Your task to perform on an android device: open app "Fetch Rewards" (install if not already installed) and go to login screen Image 0: 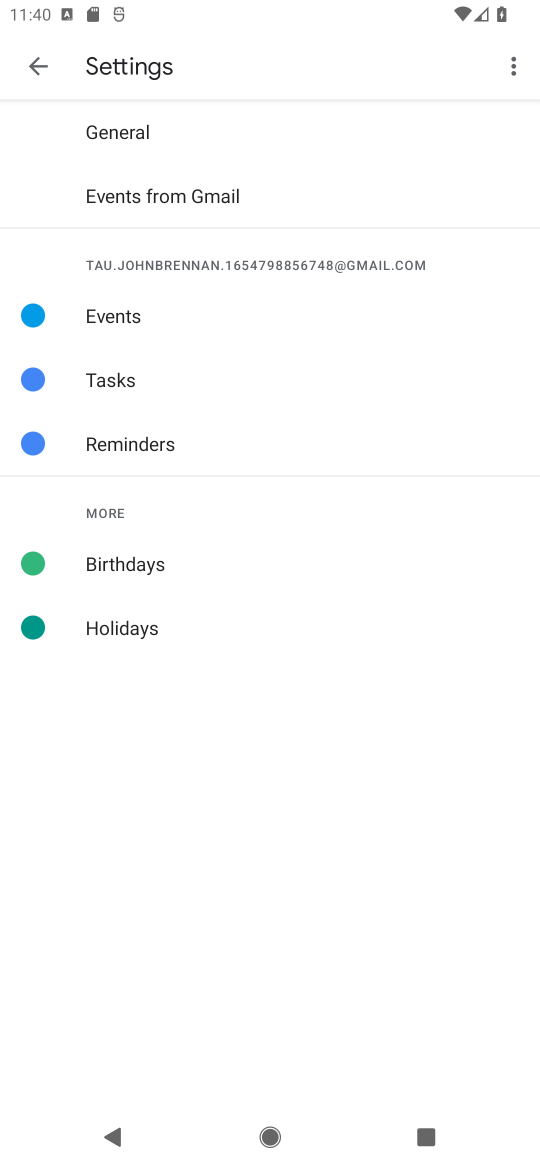
Step 0: press home button
Your task to perform on an android device: open app "Fetch Rewards" (install if not already installed) and go to login screen Image 1: 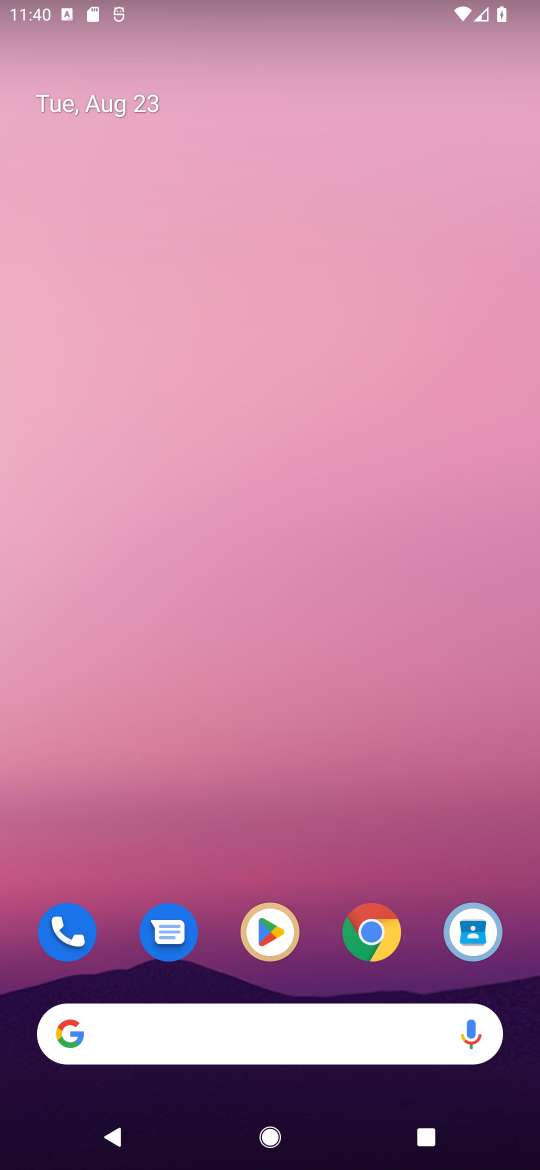
Step 1: click (274, 930)
Your task to perform on an android device: open app "Fetch Rewards" (install if not already installed) and go to login screen Image 2: 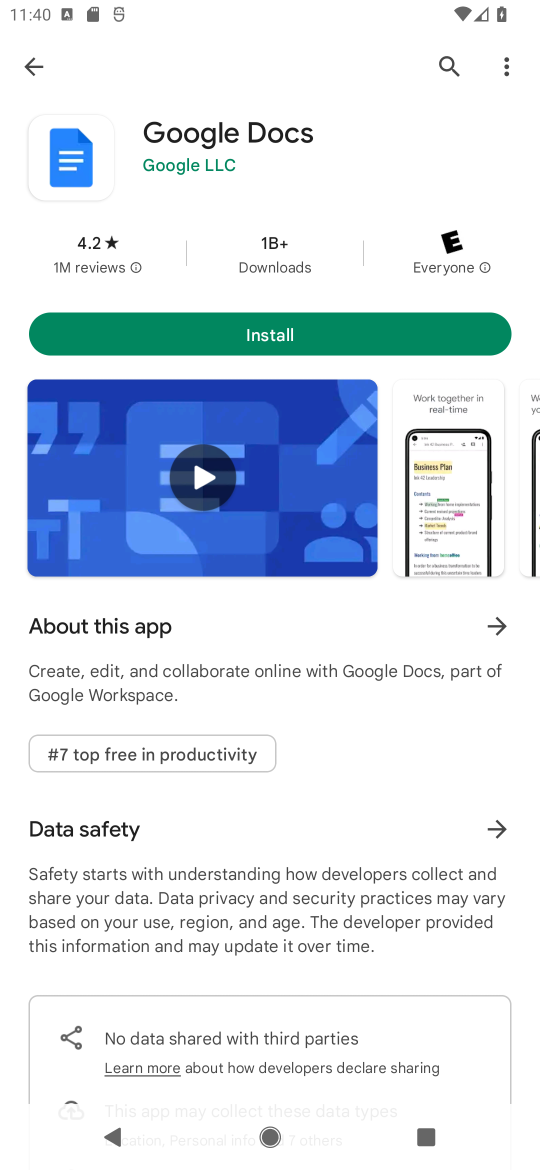
Step 2: click (445, 63)
Your task to perform on an android device: open app "Fetch Rewards" (install if not already installed) and go to login screen Image 3: 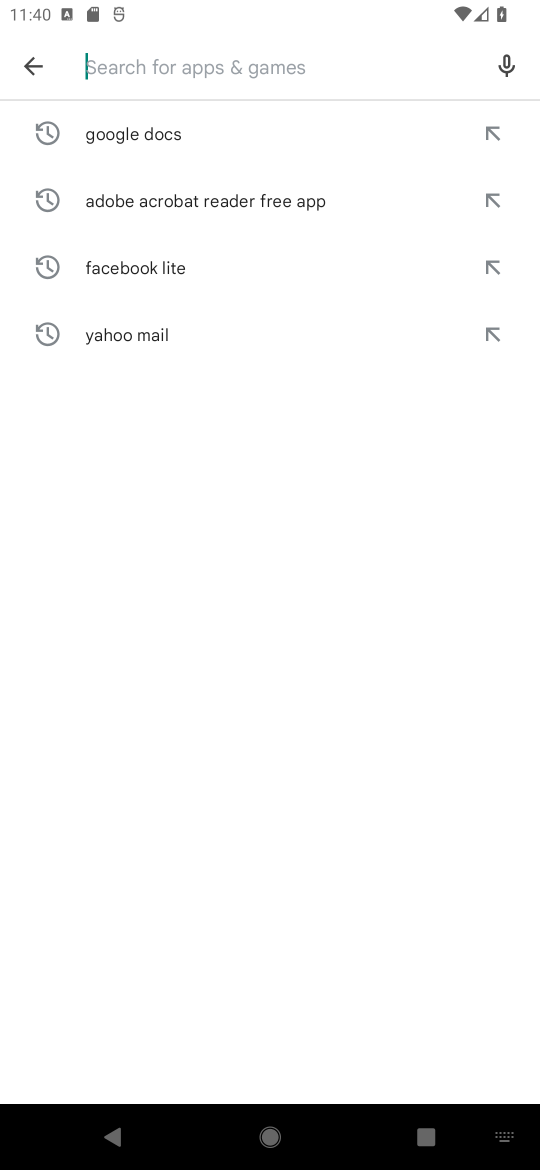
Step 3: click (111, 59)
Your task to perform on an android device: open app "Fetch Rewards" (install if not already installed) and go to login screen Image 4: 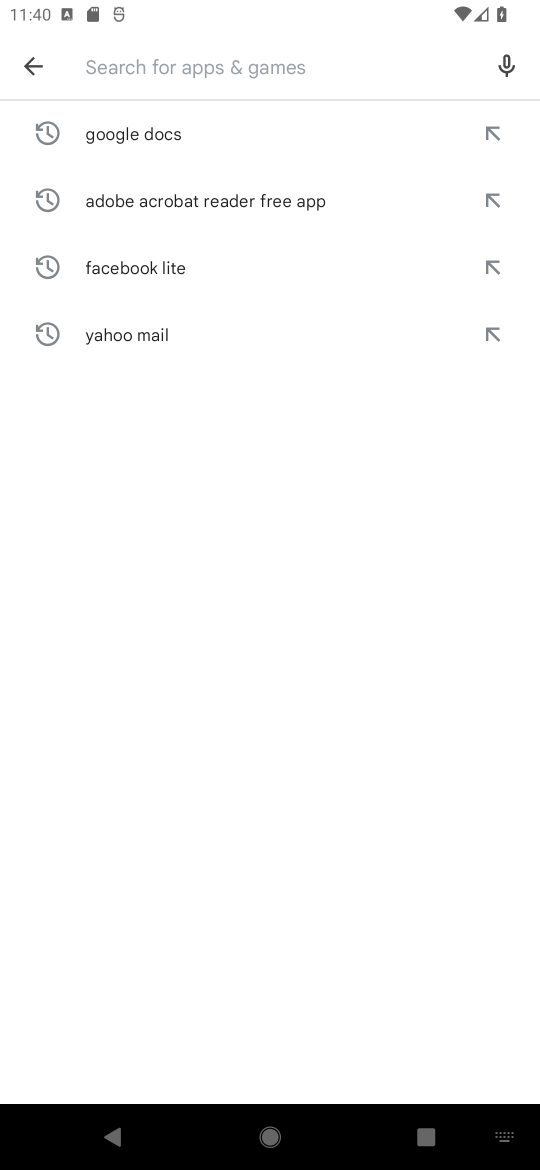
Step 4: click (150, 67)
Your task to perform on an android device: open app "Fetch Rewards" (install if not already installed) and go to login screen Image 5: 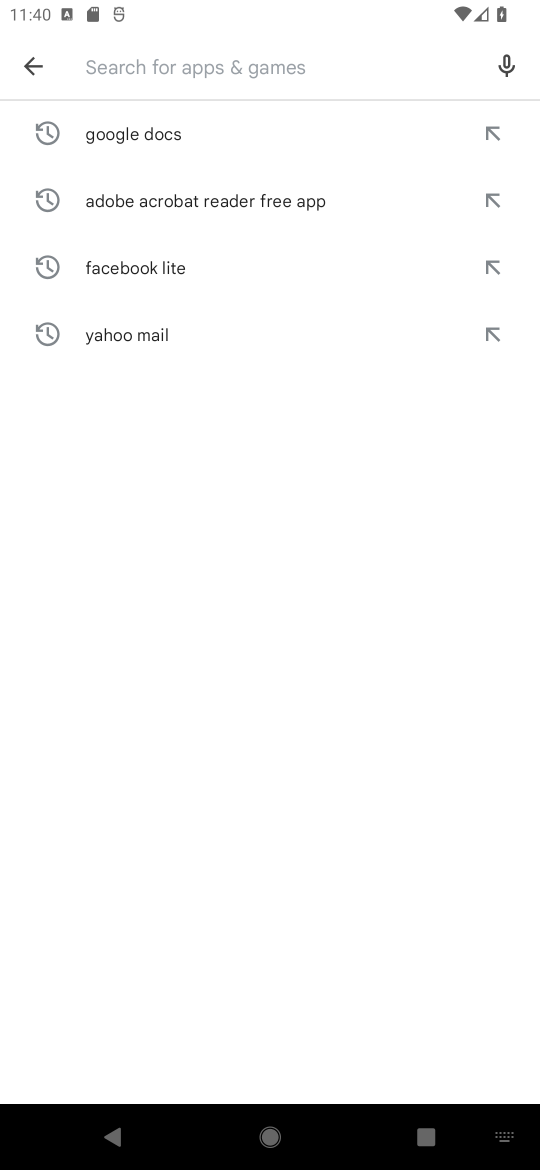
Step 5: type "Fetch Rewards"
Your task to perform on an android device: open app "Fetch Rewards" (install if not already installed) and go to login screen Image 6: 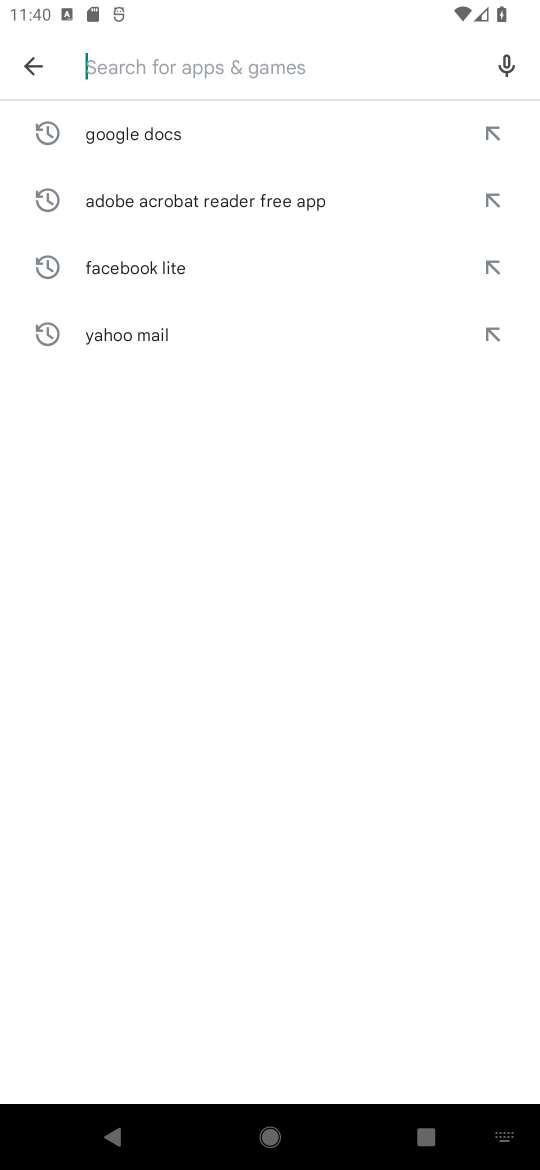
Step 6: click (296, 702)
Your task to perform on an android device: open app "Fetch Rewards" (install if not already installed) and go to login screen Image 7: 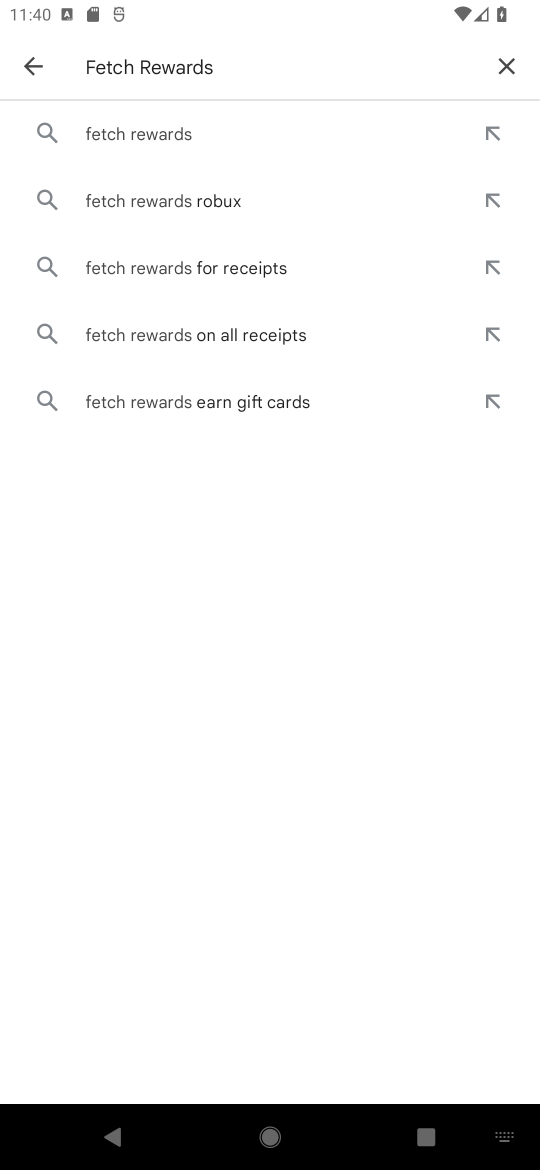
Step 7: click (160, 114)
Your task to perform on an android device: open app "Fetch Rewards" (install if not already installed) and go to login screen Image 8: 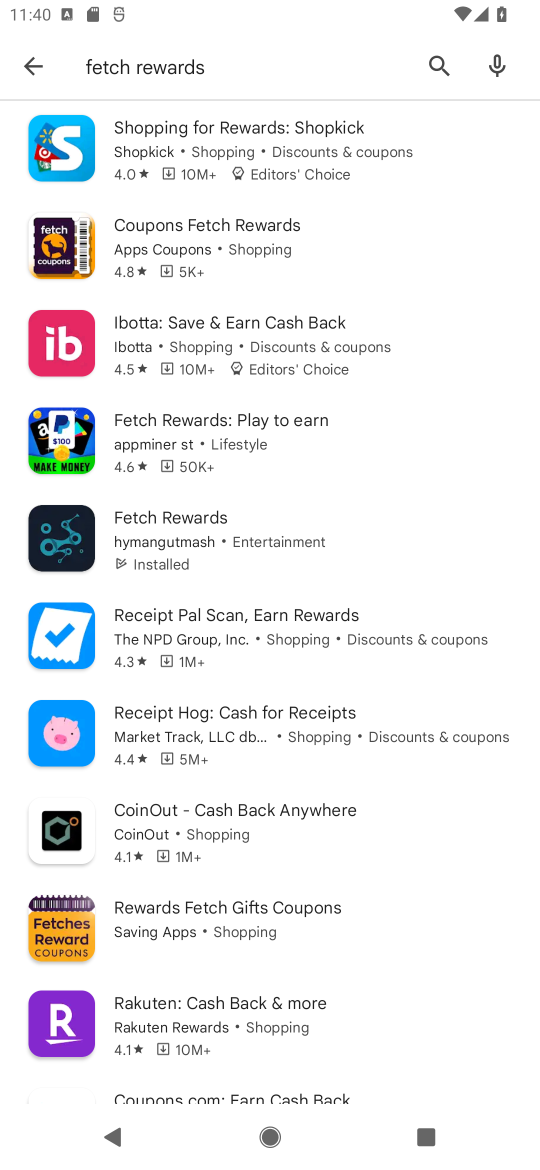
Step 8: click (207, 550)
Your task to perform on an android device: open app "Fetch Rewards" (install if not already installed) and go to login screen Image 9: 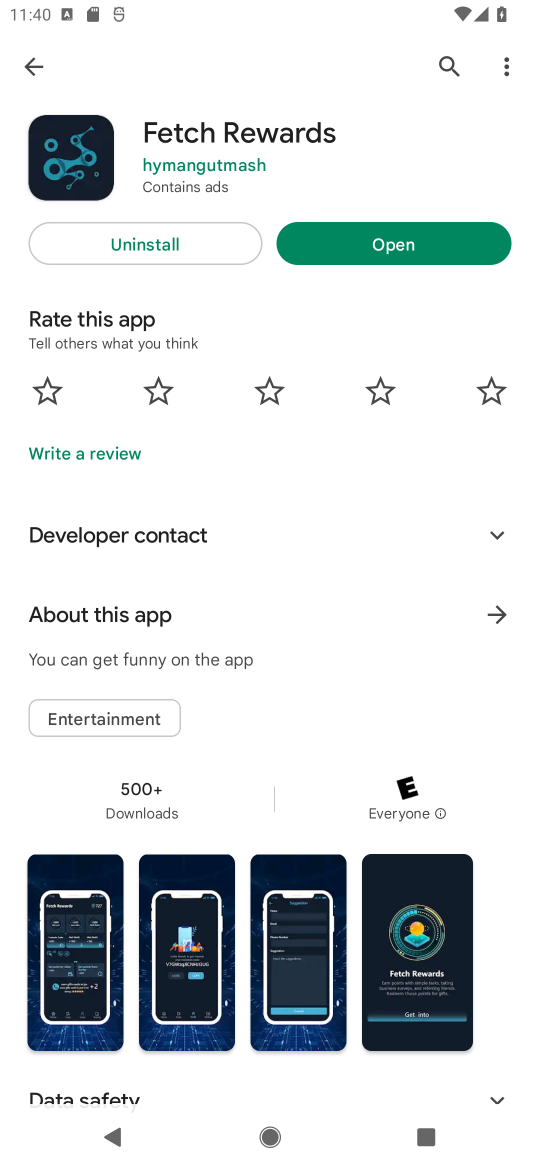
Step 9: click (399, 255)
Your task to perform on an android device: open app "Fetch Rewards" (install if not already installed) and go to login screen Image 10: 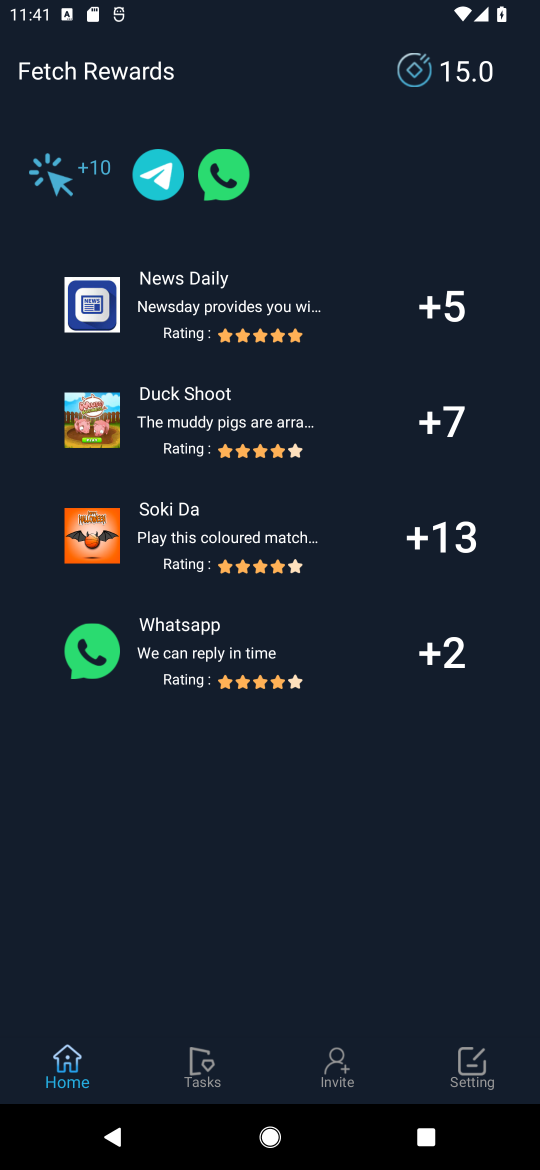
Step 10: click (465, 1061)
Your task to perform on an android device: open app "Fetch Rewards" (install if not already installed) and go to login screen Image 11: 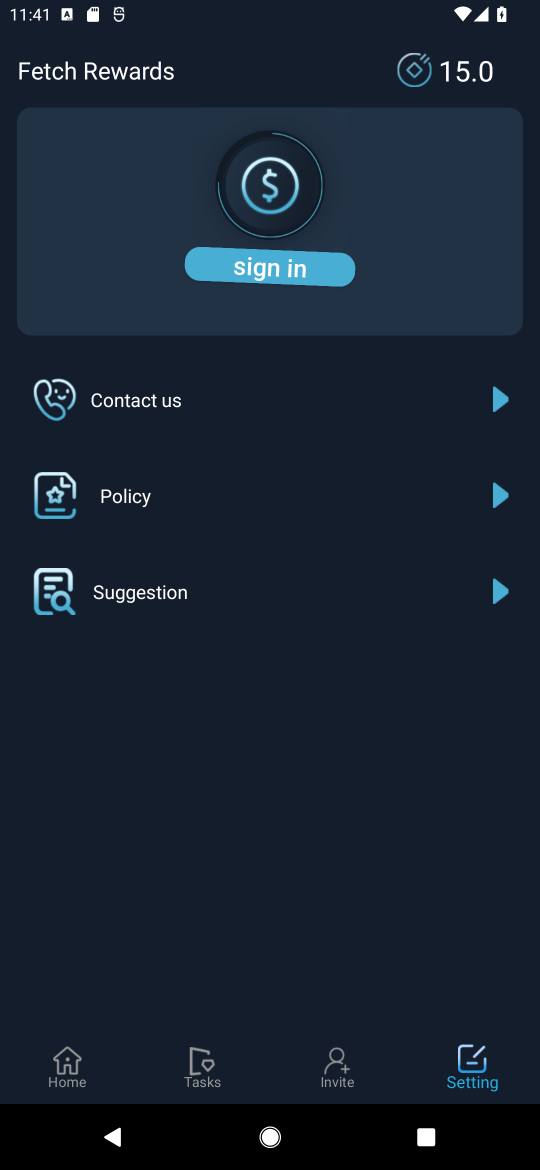
Step 11: click (252, 264)
Your task to perform on an android device: open app "Fetch Rewards" (install if not already installed) and go to login screen Image 12: 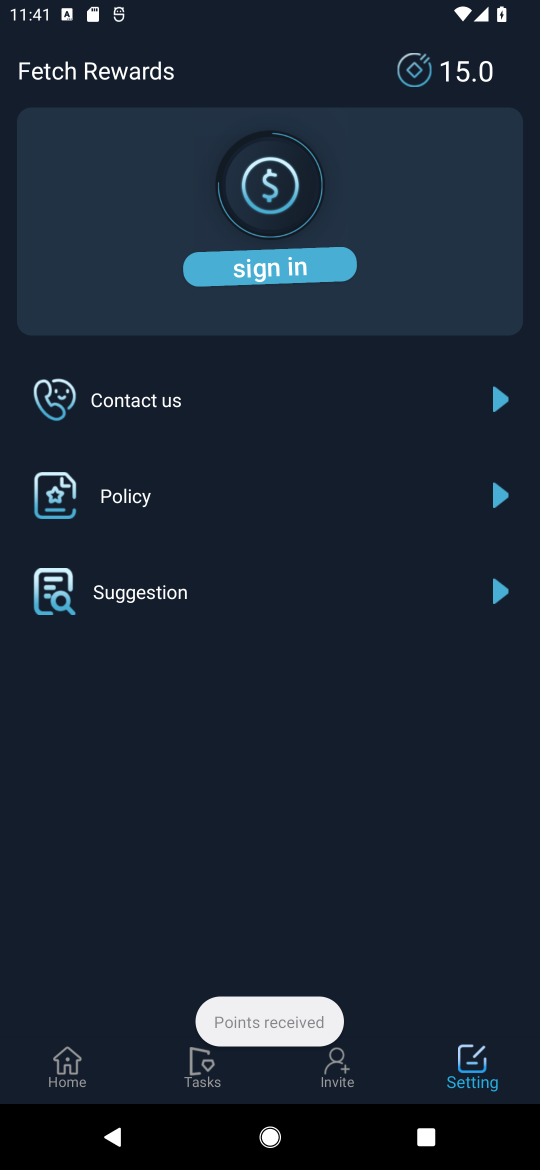
Step 12: click (273, 269)
Your task to perform on an android device: open app "Fetch Rewards" (install if not already installed) and go to login screen Image 13: 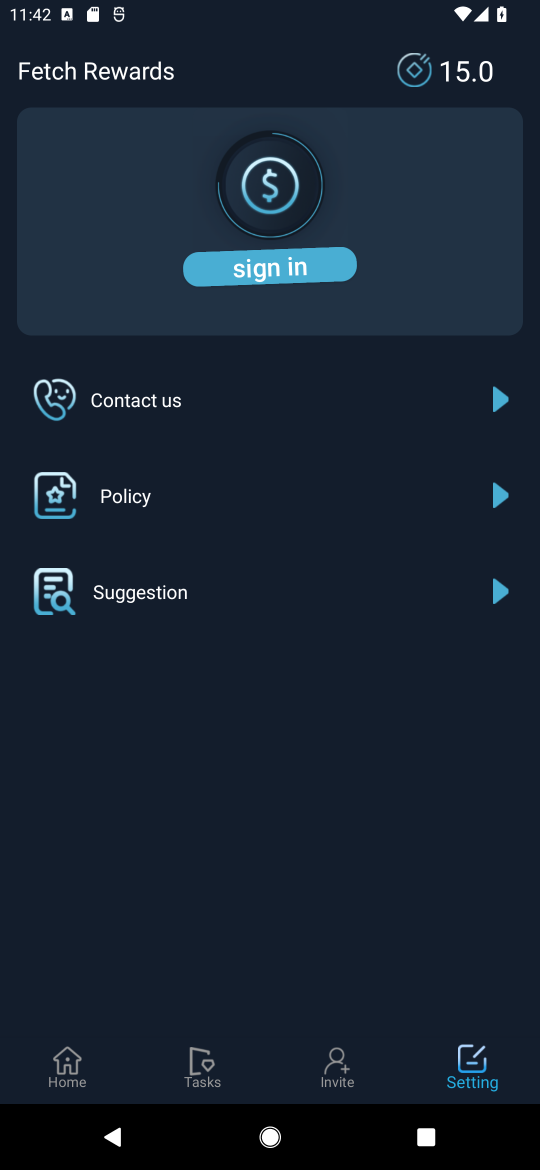
Step 13: click (313, 276)
Your task to perform on an android device: open app "Fetch Rewards" (install if not already installed) and go to login screen Image 14: 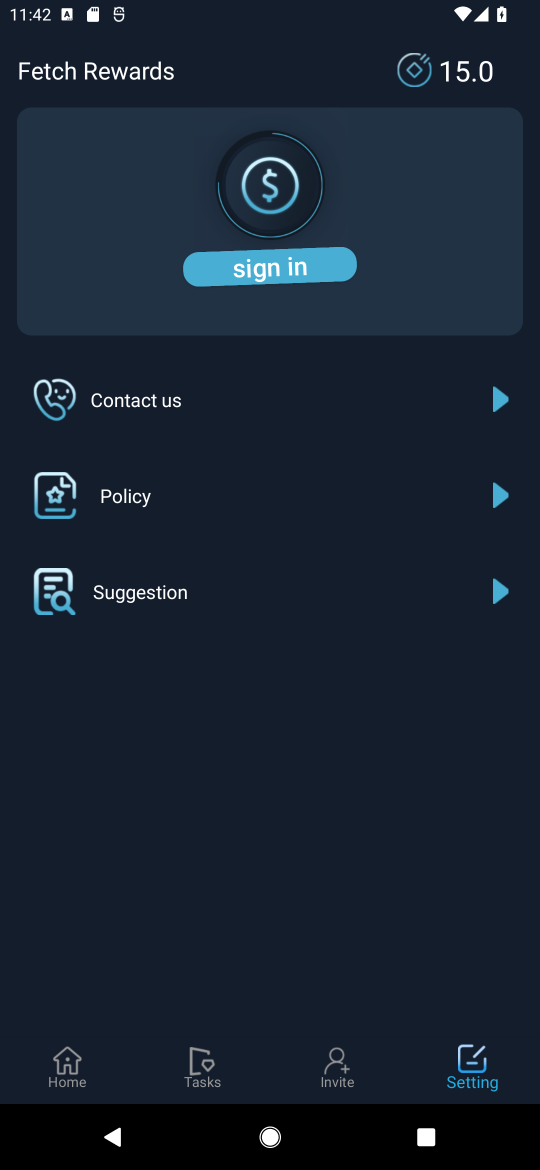
Step 14: click (309, 261)
Your task to perform on an android device: open app "Fetch Rewards" (install if not already installed) and go to login screen Image 15: 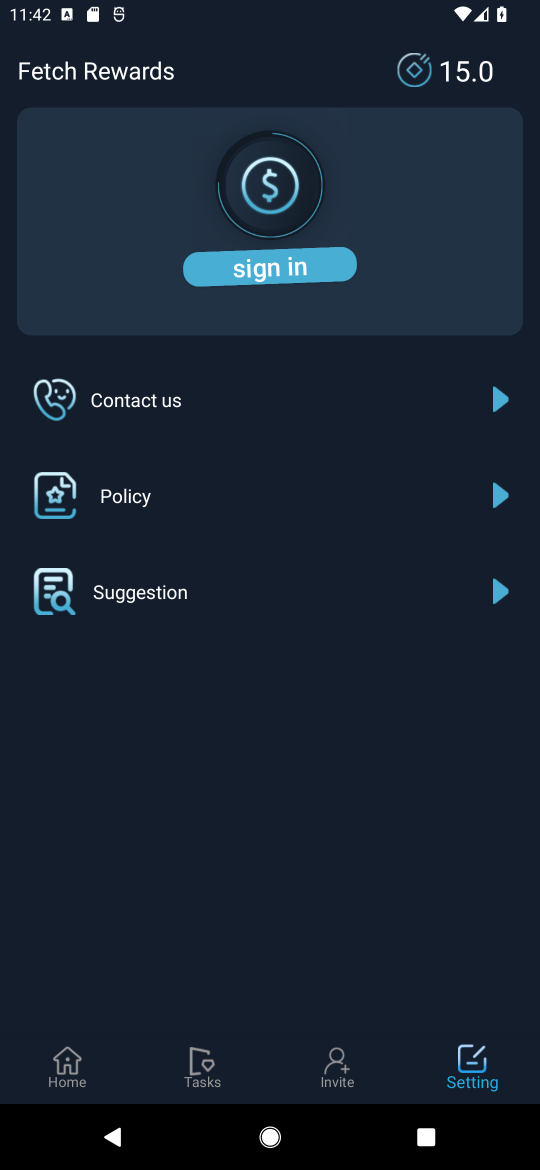
Step 15: click (312, 267)
Your task to perform on an android device: open app "Fetch Rewards" (install if not already installed) and go to login screen Image 16: 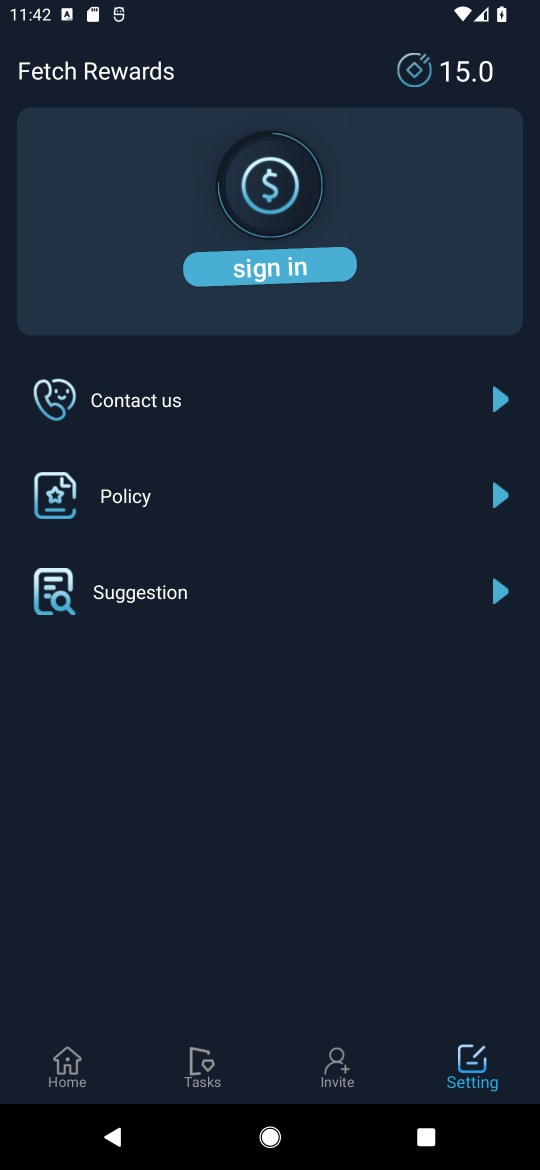
Step 16: task complete